Your task to perform on an android device: Open Chrome and go to the settings page Image 0: 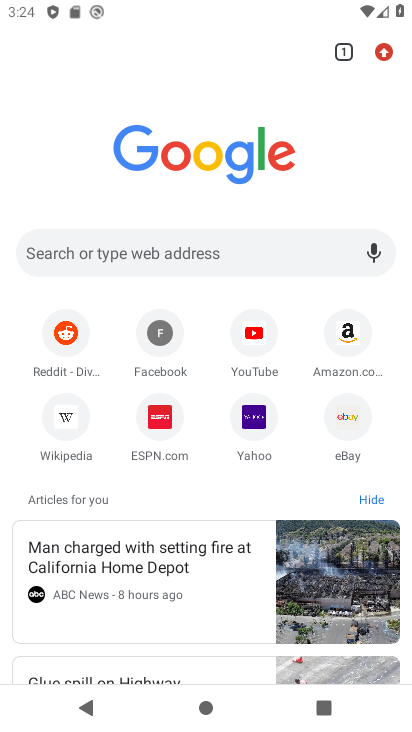
Step 0: click (391, 51)
Your task to perform on an android device: Open Chrome and go to the settings page Image 1: 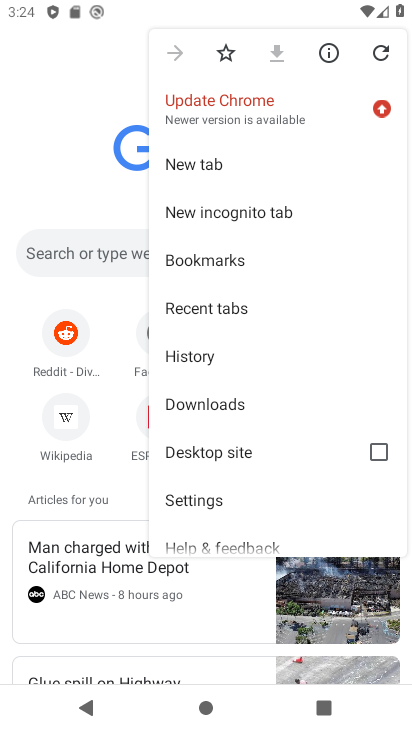
Step 1: click (199, 505)
Your task to perform on an android device: Open Chrome and go to the settings page Image 2: 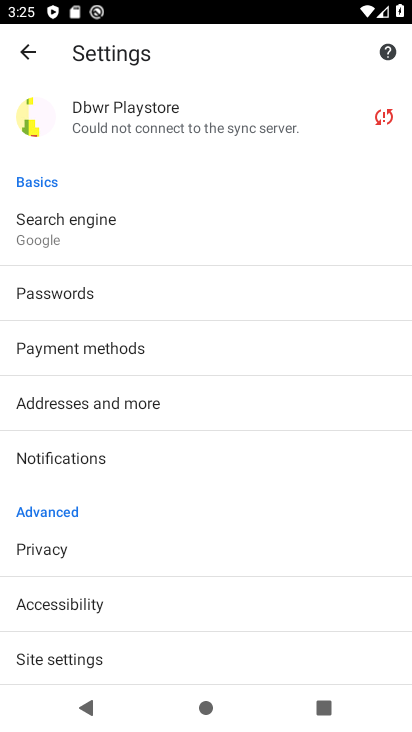
Step 2: task complete